Your task to perform on an android device: toggle notification dots Image 0: 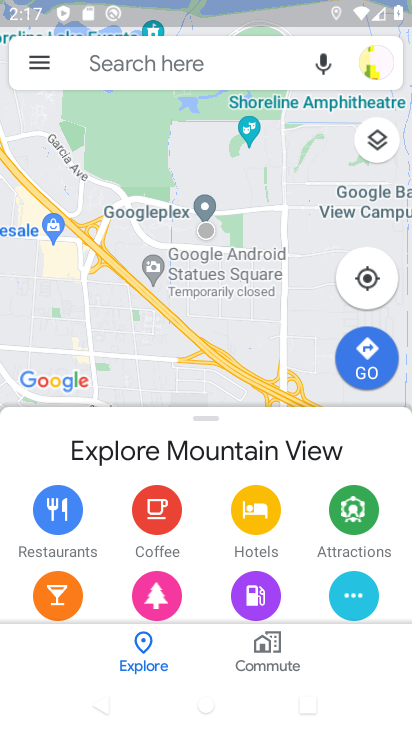
Step 0: press home button
Your task to perform on an android device: toggle notification dots Image 1: 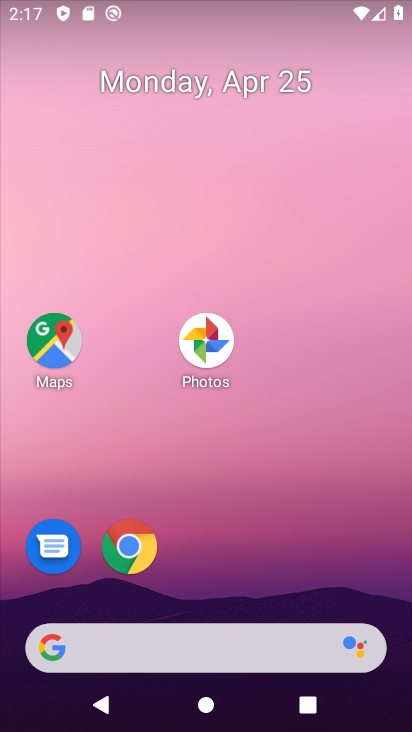
Step 1: drag from (260, 572) to (325, 162)
Your task to perform on an android device: toggle notification dots Image 2: 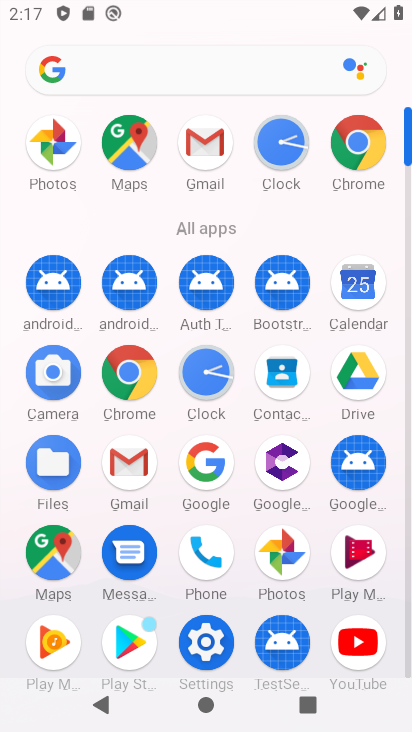
Step 2: click (205, 632)
Your task to perform on an android device: toggle notification dots Image 3: 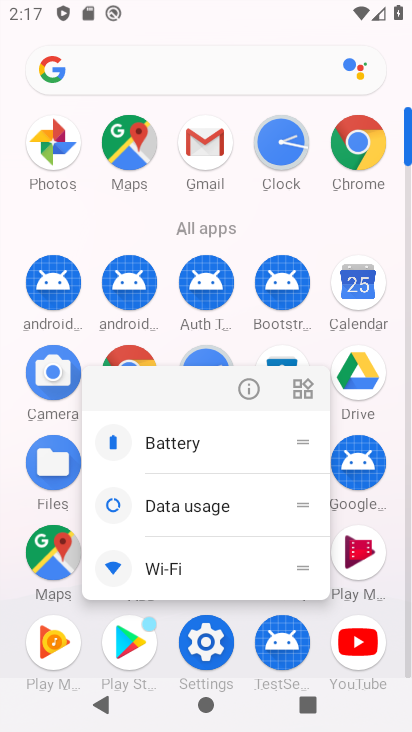
Step 3: click (204, 632)
Your task to perform on an android device: toggle notification dots Image 4: 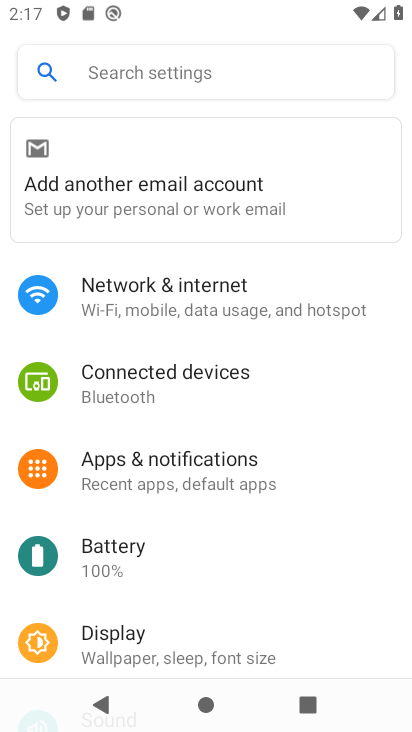
Step 4: click (195, 66)
Your task to perform on an android device: toggle notification dots Image 5: 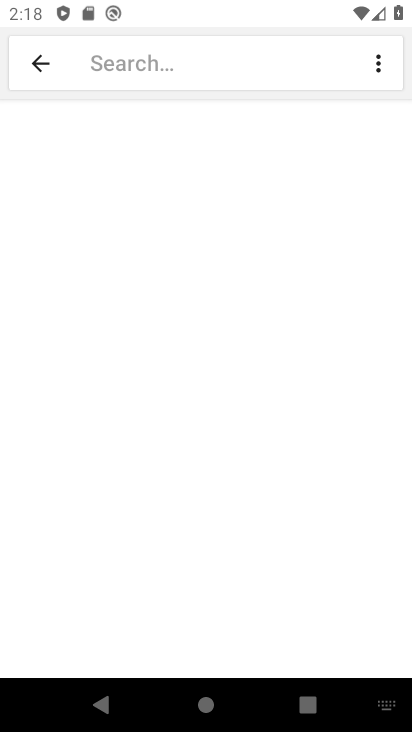
Step 5: type "notification dots"
Your task to perform on an android device: toggle notification dots Image 6: 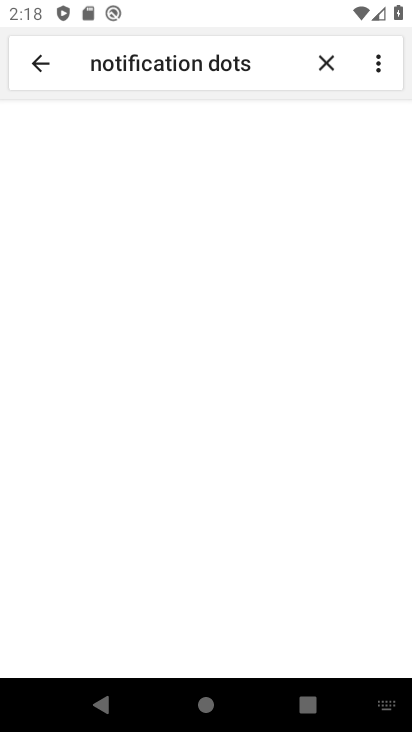
Step 6: click (251, 162)
Your task to perform on an android device: toggle notification dots Image 7: 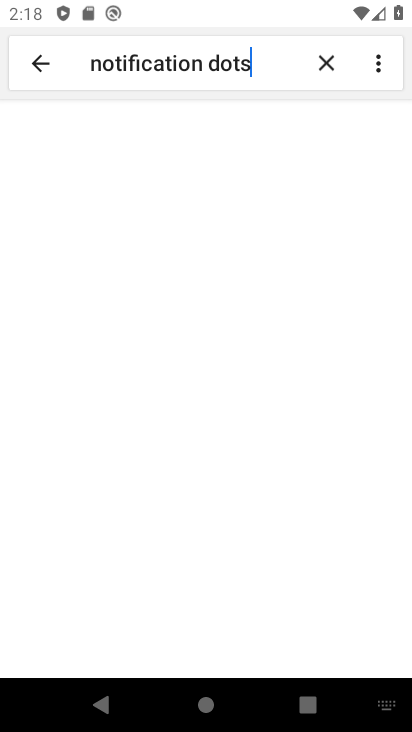
Step 7: drag from (254, 208) to (258, 312)
Your task to perform on an android device: toggle notification dots Image 8: 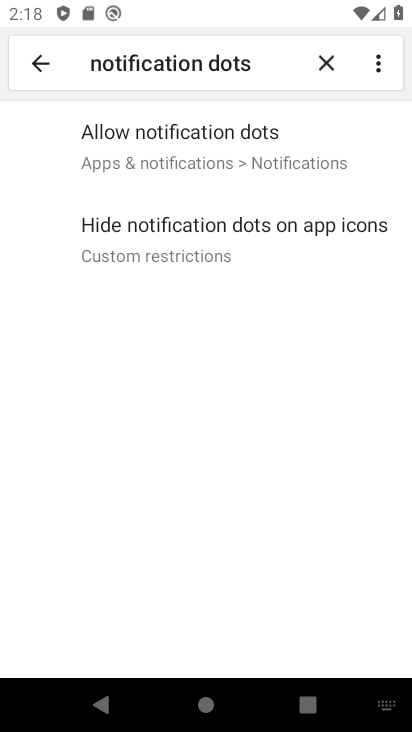
Step 8: click (220, 124)
Your task to perform on an android device: toggle notification dots Image 9: 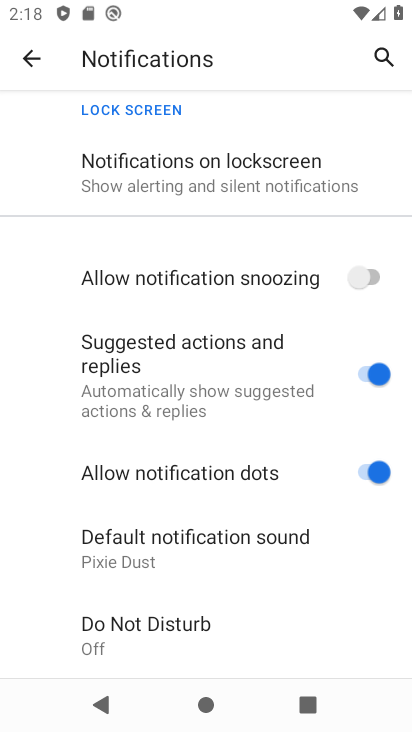
Step 9: click (371, 472)
Your task to perform on an android device: toggle notification dots Image 10: 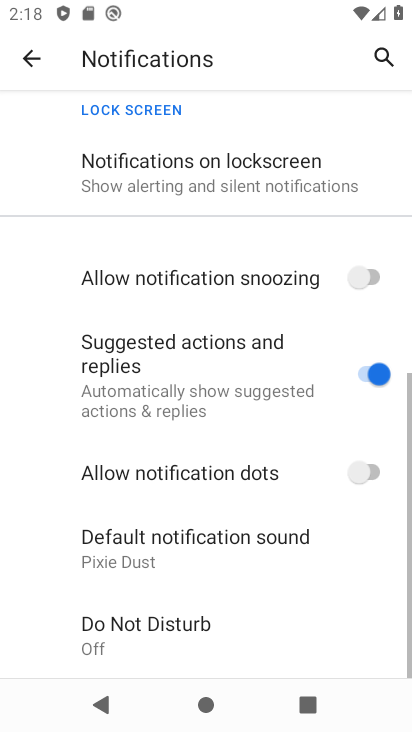
Step 10: task complete